Your task to perform on an android device: visit the assistant section in the google photos Image 0: 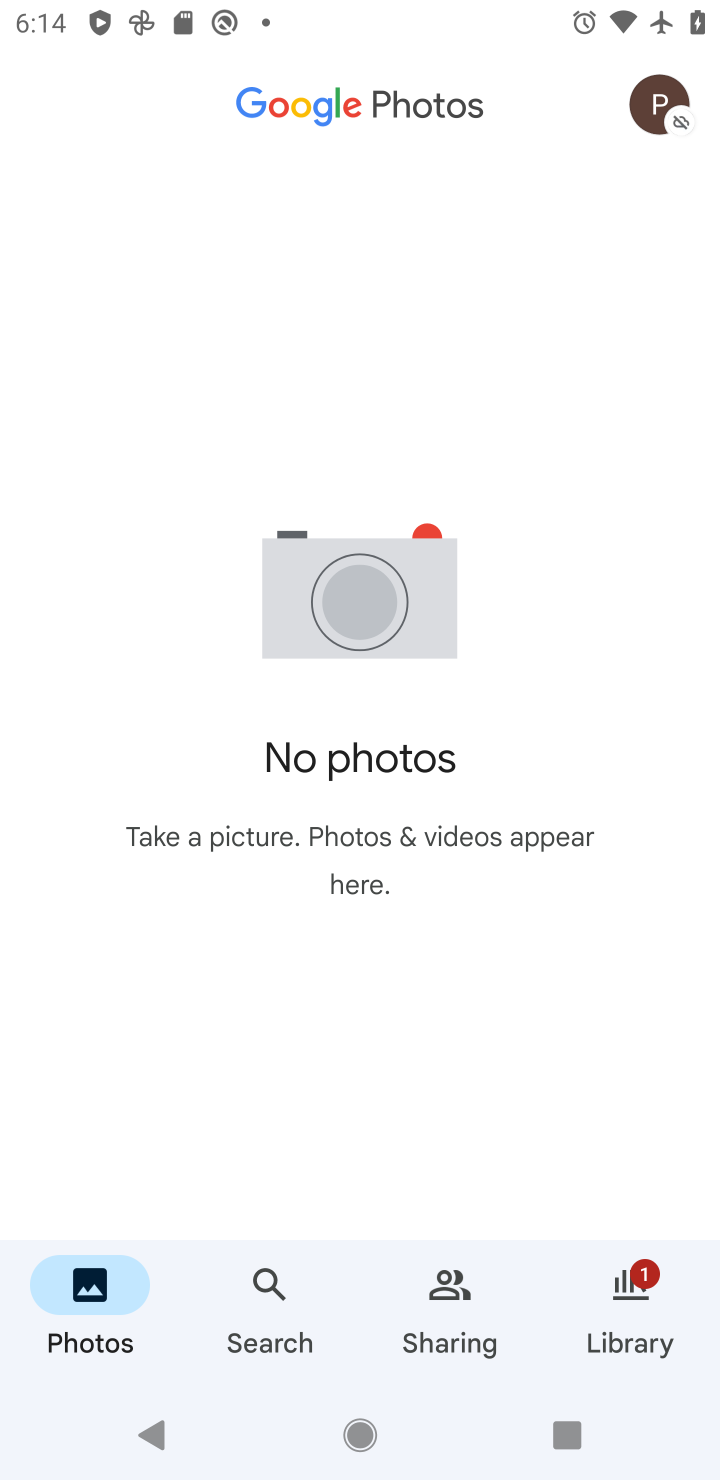
Step 0: press home button
Your task to perform on an android device: visit the assistant section in the google photos Image 1: 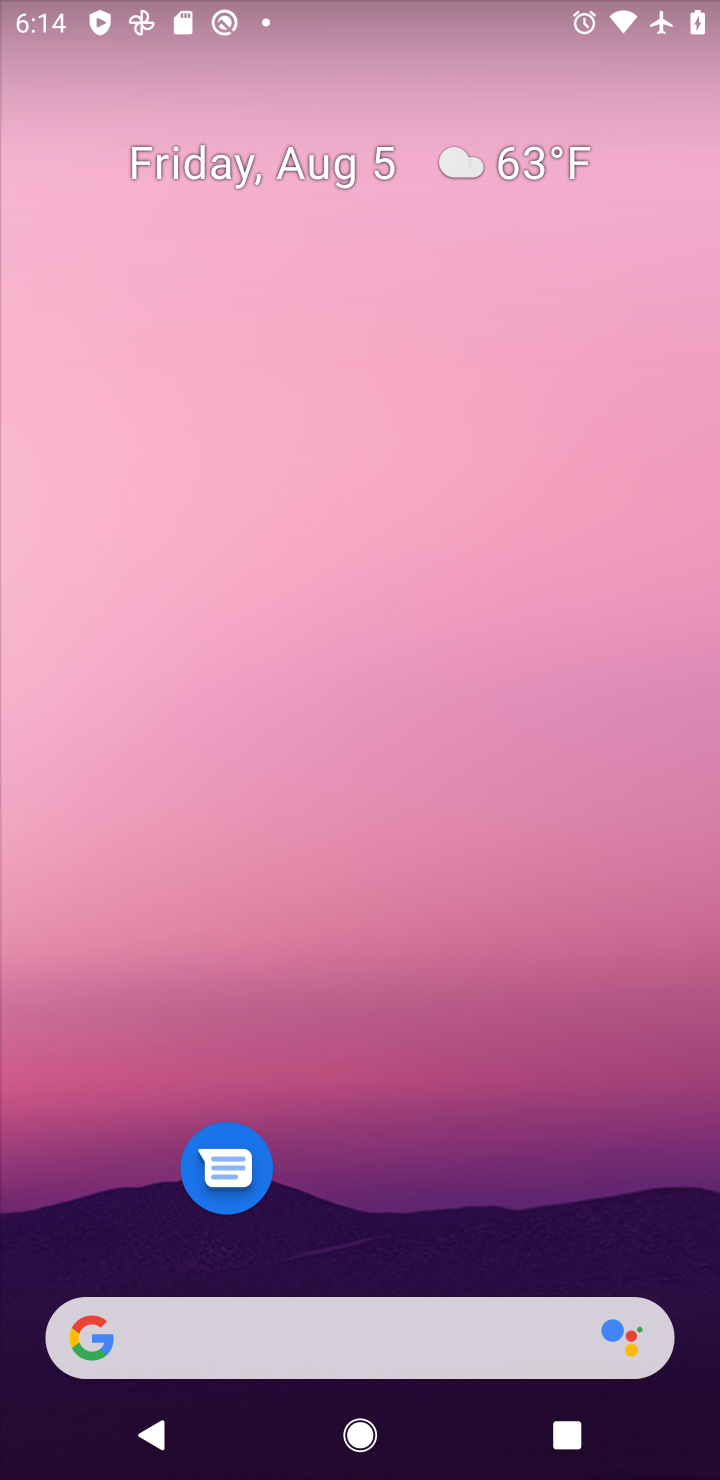
Step 1: drag from (416, 1250) to (296, 315)
Your task to perform on an android device: visit the assistant section in the google photos Image 2: 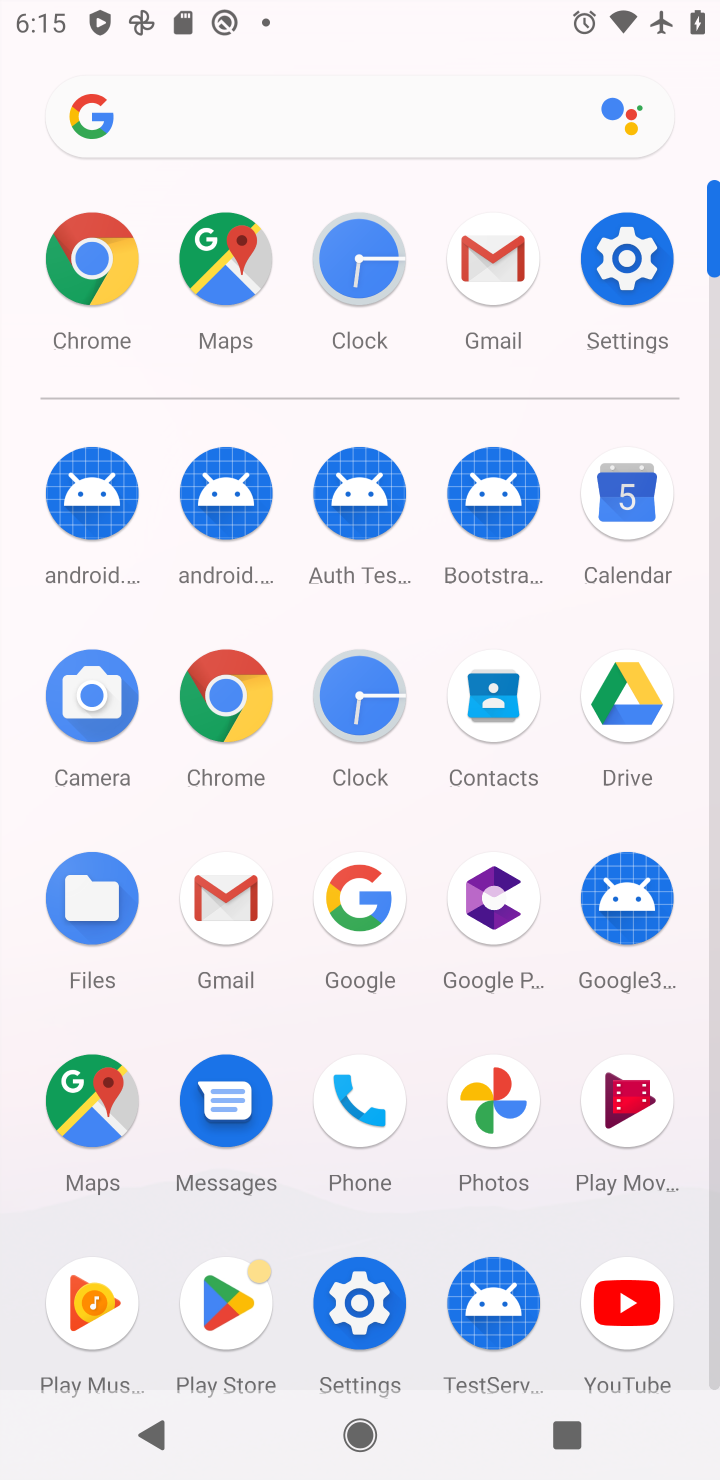
Step 2: click (495, 1106)
Your task to perform on an android device: visit the assistant section in the google photos Image 3: 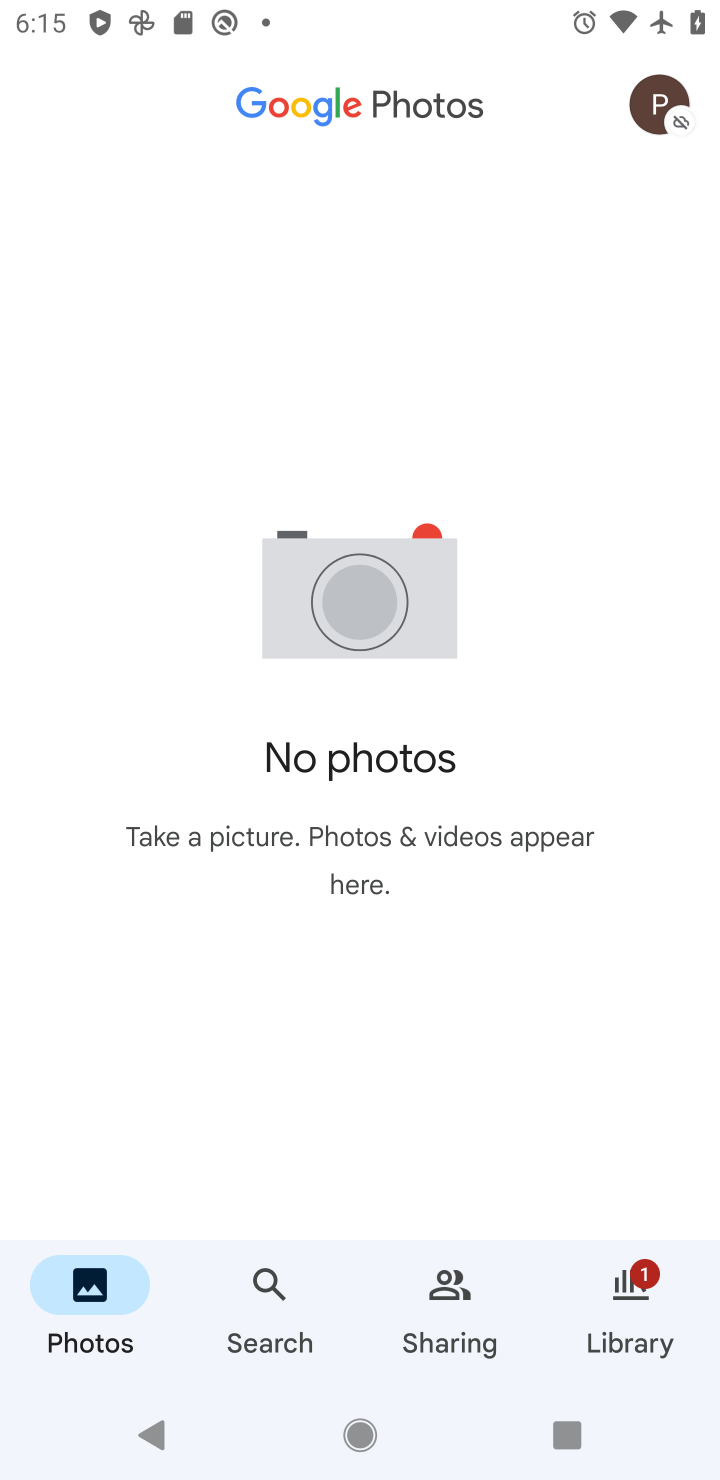
Step 3: task complete